Your task to perform on an android device: move an email to a new category in the gmail app Image 0: 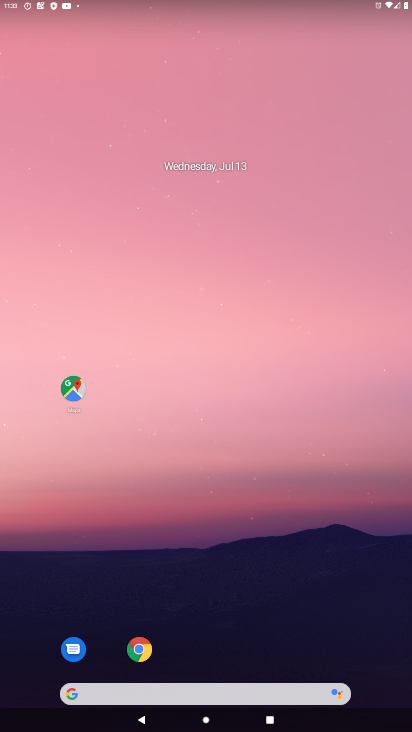
Step 0: drag from (231, 690) to (188, 255)
Your task to perform on an android device: move an email to a new category in the gmail app Image 1: 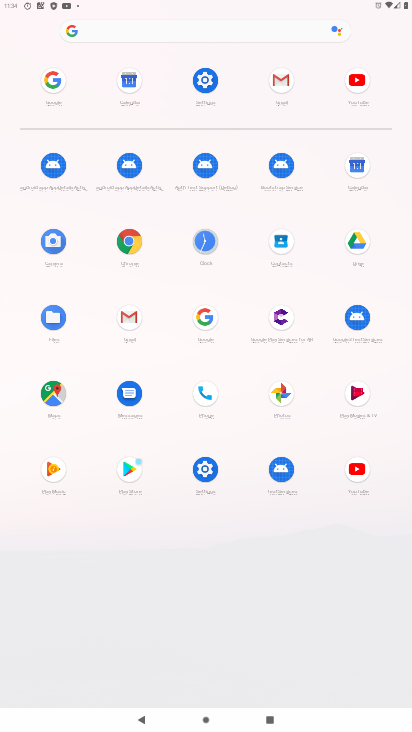
Step 1: click (281, 79)
Your task to perform on an android device: move an email to a new category in the gmail app Image 2: 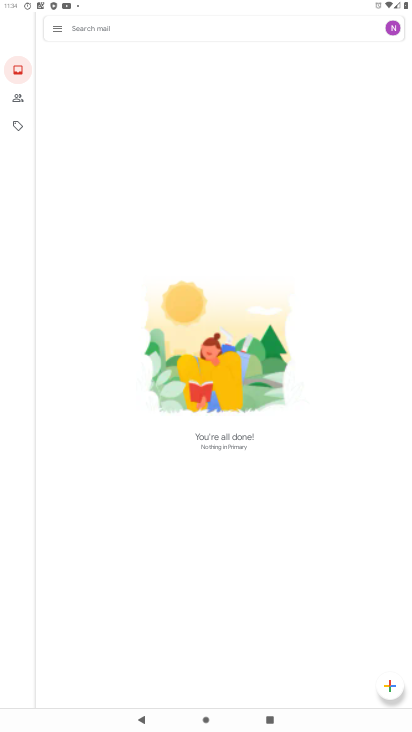
Step 2: click (58, 28)
Your task to perform on an android device: move an email to a new category in the gmail app Image 3: 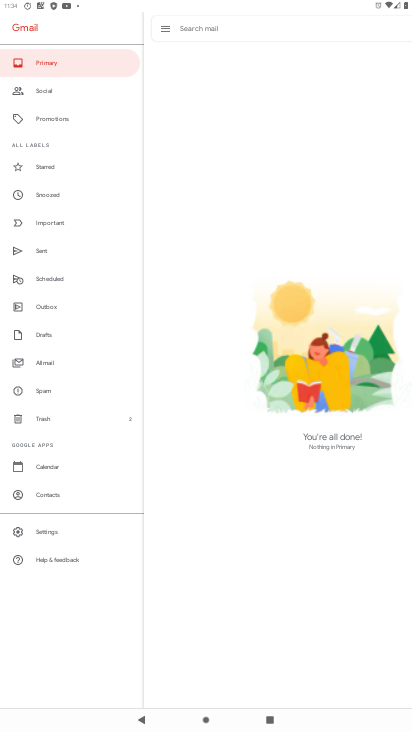
Step 3: click (41, 358)
Your task to perform on an android device: move an email to a new category in the gmail app Image 4: 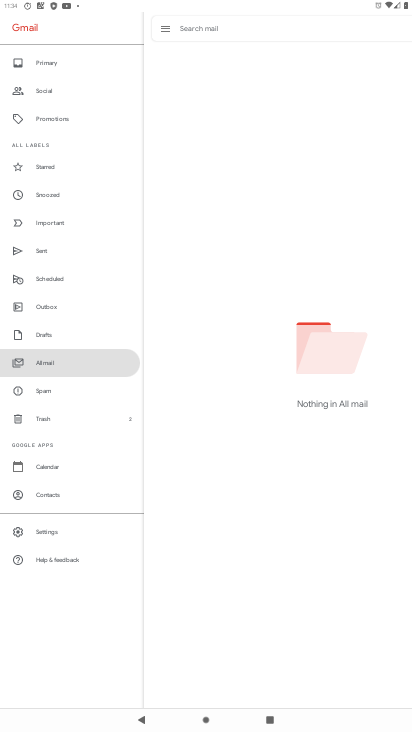
Step 4: click (44, 339)
Your task to perform on an android device: move an email to a new category in the gmail app Image 5: 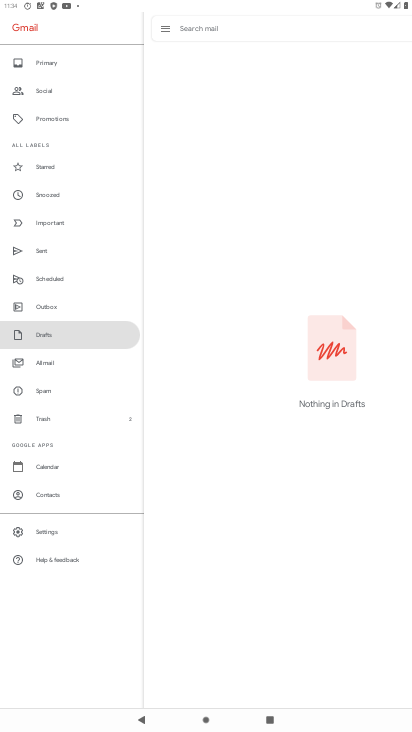
Step 5: click (49, 307)
Your task to perform on an android device: move an email to a new category in the gmail app Image 6: 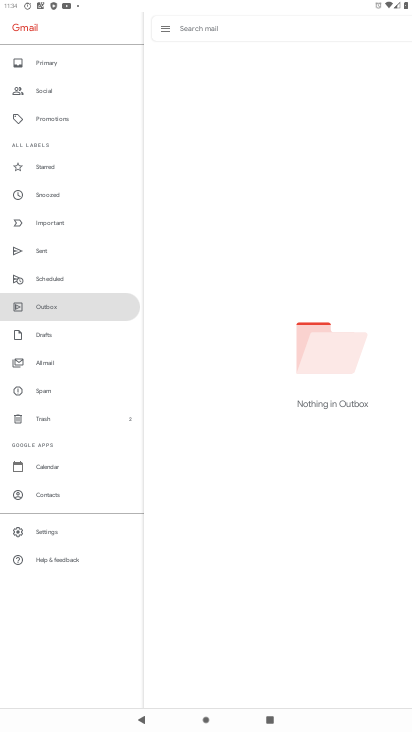
Step 6: click (51, 281)
Your task to perform on an android device: move an email to a new category in the gmail app Image 7: 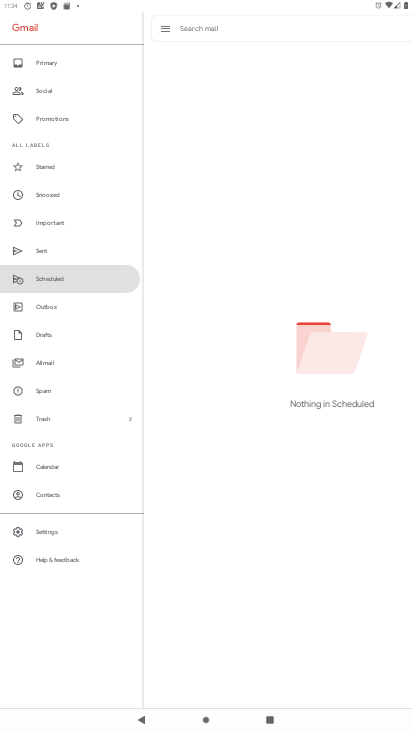
Step 7: click (48, 244)
Your task to perform on an android device: move an email to a new category in the gmail app Image 8: 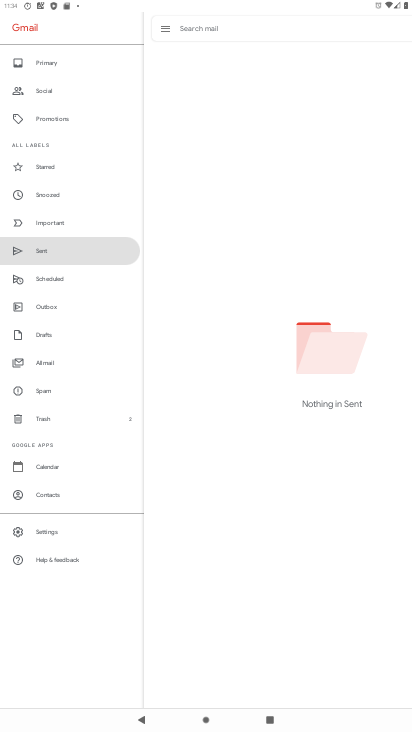
Step 8: click (43, 223)
Your task to perform on an android device: move an email to a new category in the gmail app Image 9: 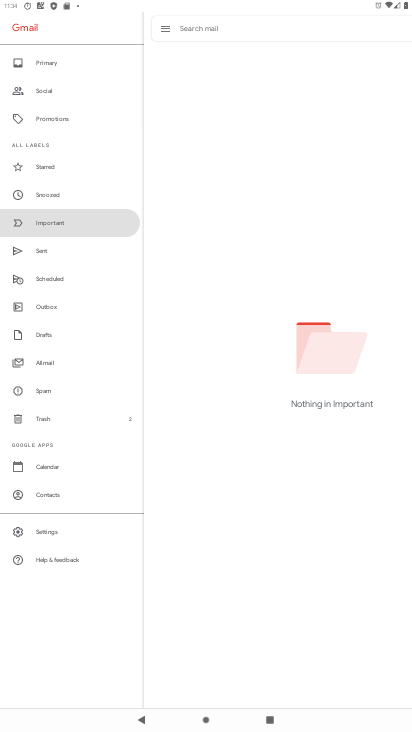
Step 9: click (50, 194)
Your task to perform on an android device: move an email to a new category in the gmail app Image 10: 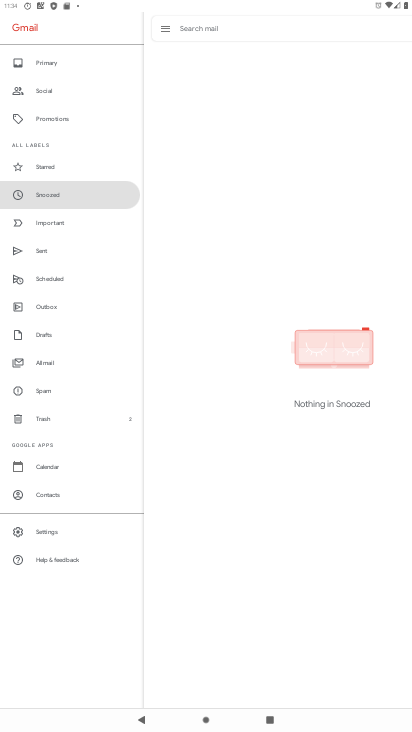
Step 10: click (51, 172)
Your task to perform on an android device: move an email to a new category in the gmail app Image 11: 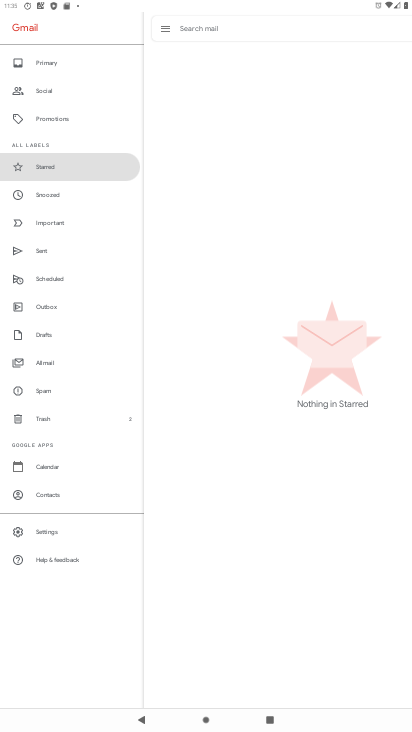
Step 11: task complete